Your task to perform on an android device: Find coffee shops on Maps Image 0: 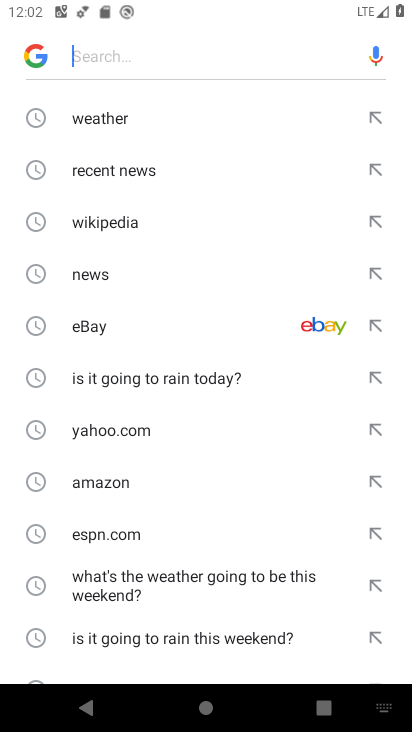
Step 0: click (98, 710)
Your task to perform on an android device: Find coffee shops on Maps Image 1: 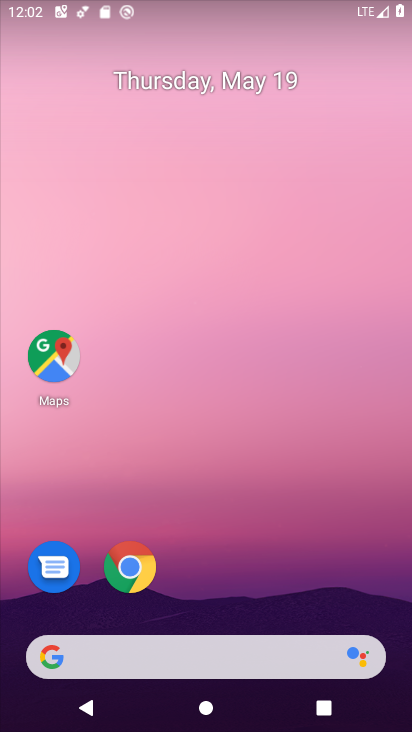
Step 1: click (151, 571)
Your task to perform on an android device: Find coffee shops on Maps Image 2: 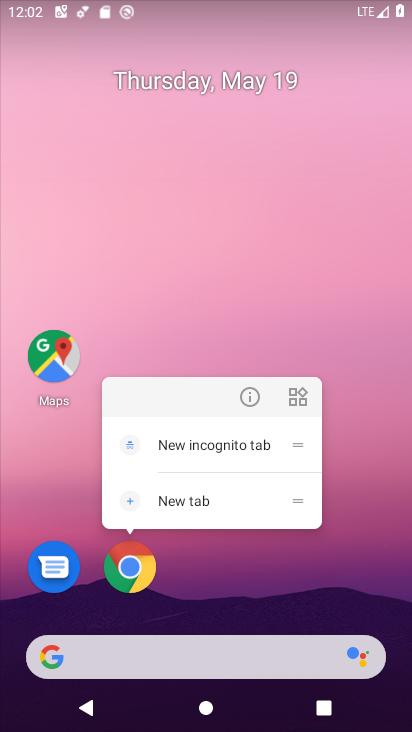
Step 2: click (48, 337)
Your task to perform on an android device: Find coffee shops on Maps Image 3: 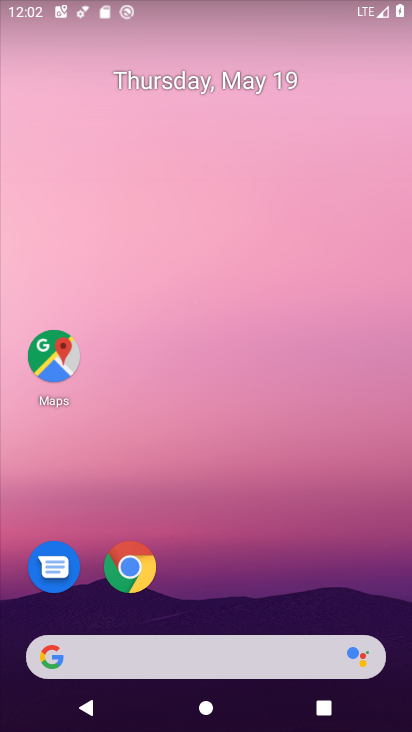
Step 3: click (59, 356)
Your task to perform on an android device: Find coffee shops on Maps Image 4: 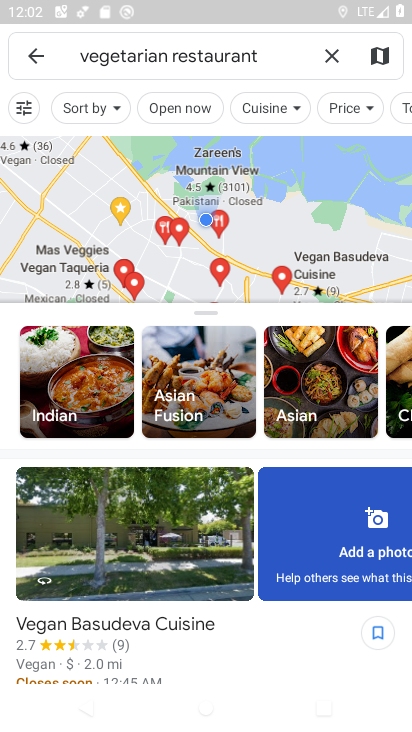
Step 4: click (319, 66)
Your task to perform on an android device: Find coffee shops on Maps Image 5: 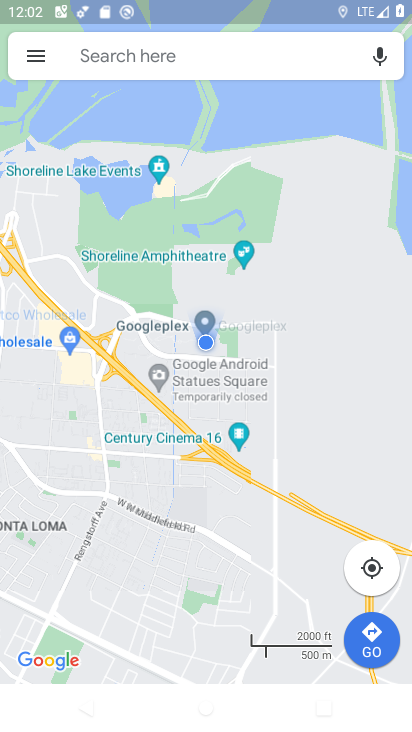
Step 5: click (285, 54)
Your task to perform on an android device: Find coffee shops on Maps Image 6: 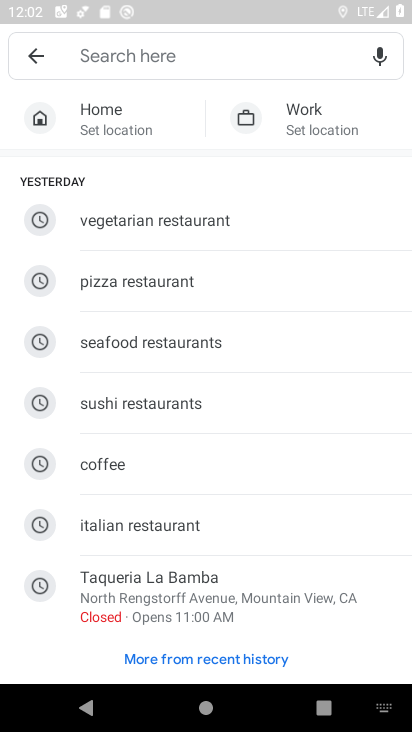
Step 6: click (110, 465)
Your task to perform on an android device: Find coffee shops on Maps Image 7: 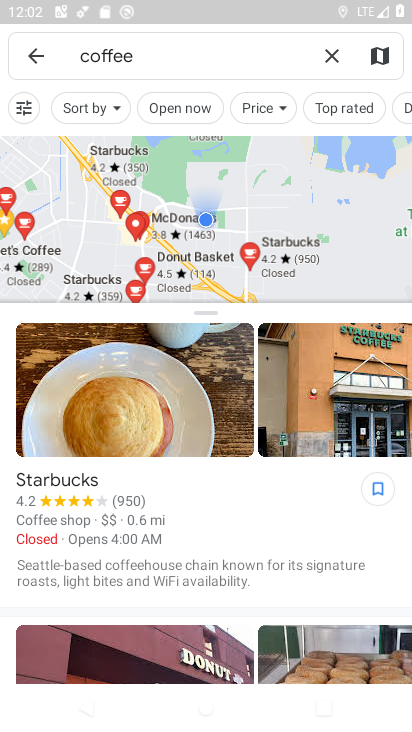
Step 7: task complete